Your task to perform on an android device: find snoozed emails in the gmail app Image 0: 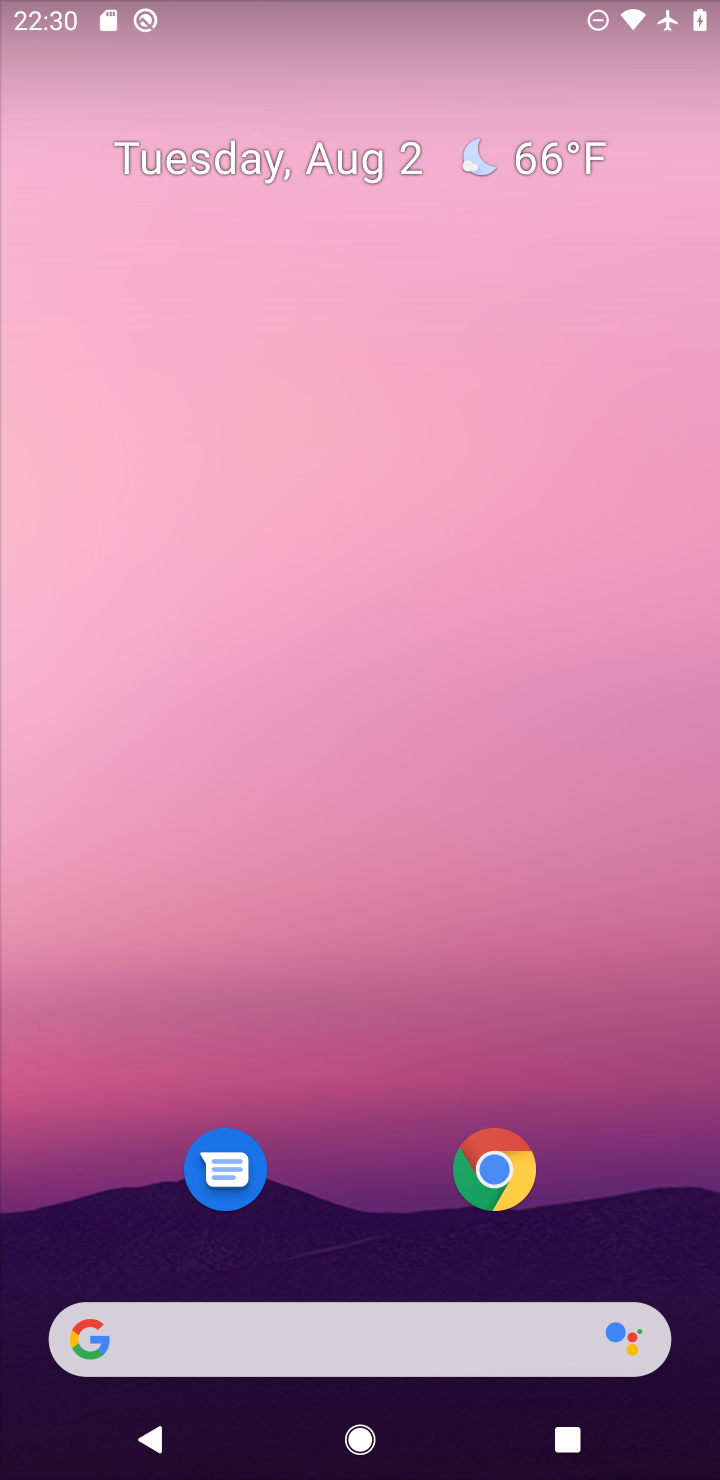
Step 0: drag from (372, 1232) to (390, 30)
Your task to perform on an android device: find snoozed emails in the gmail app Image 1: 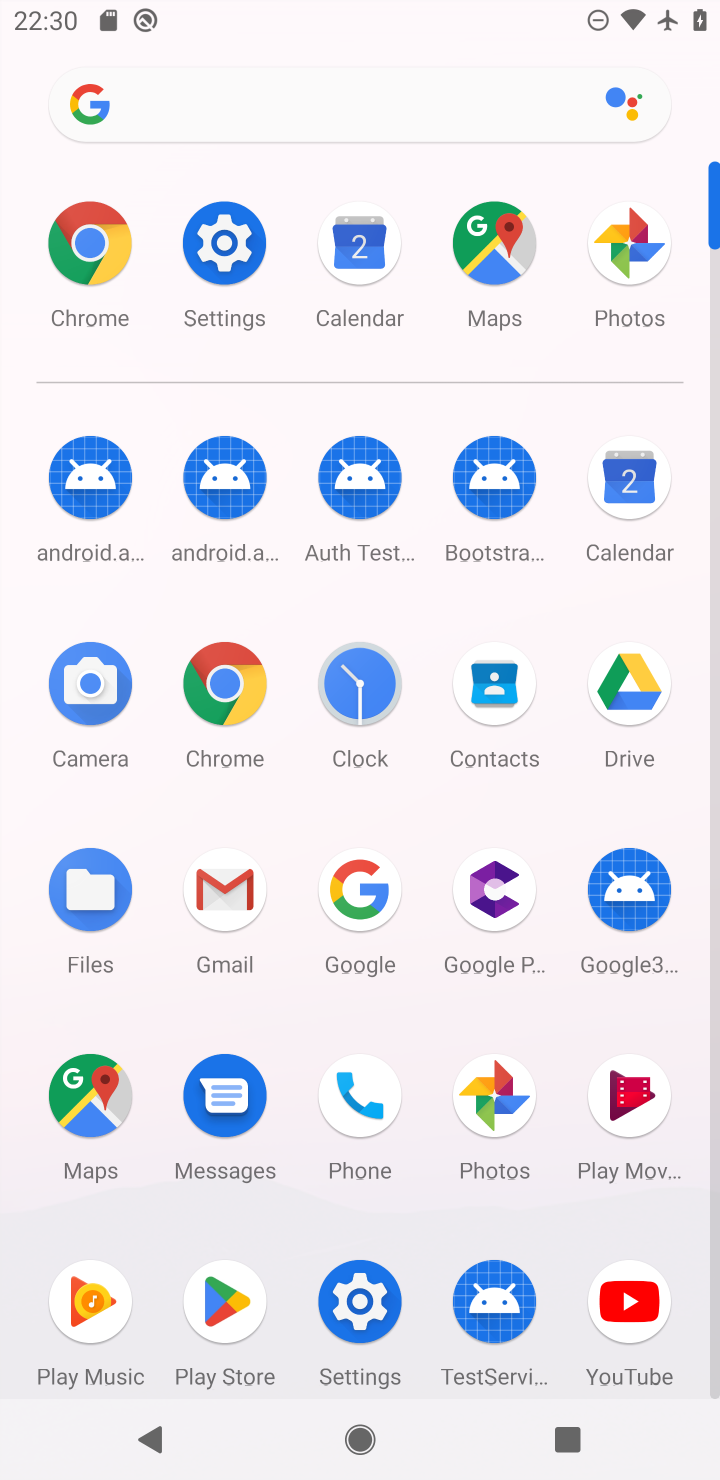
Step 1: click (224, 889)
Your task to perform on an android device: find snoozed emails in the gmail app Image 2: 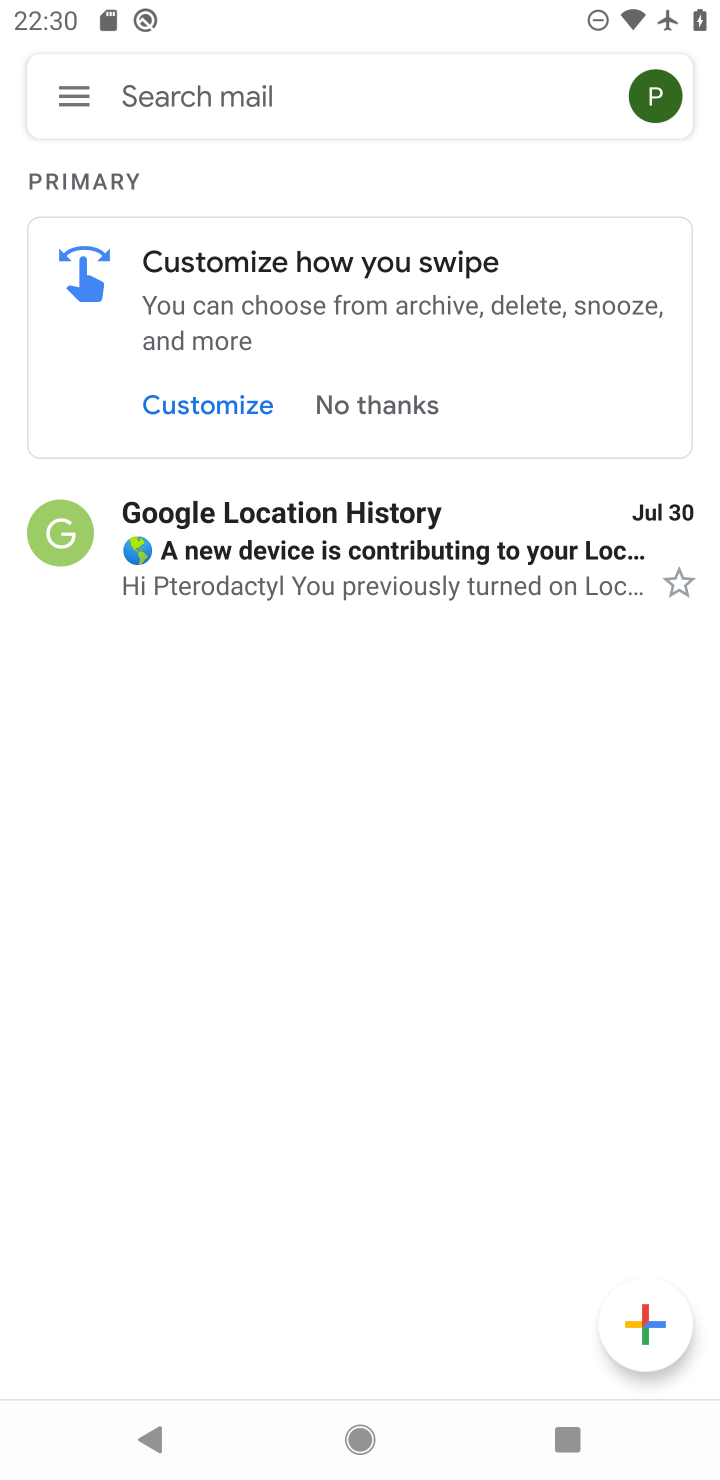
Step 2: click (60, 96)
Your task to perform on an android device: find snoozed emails in the gmail app Image 3: 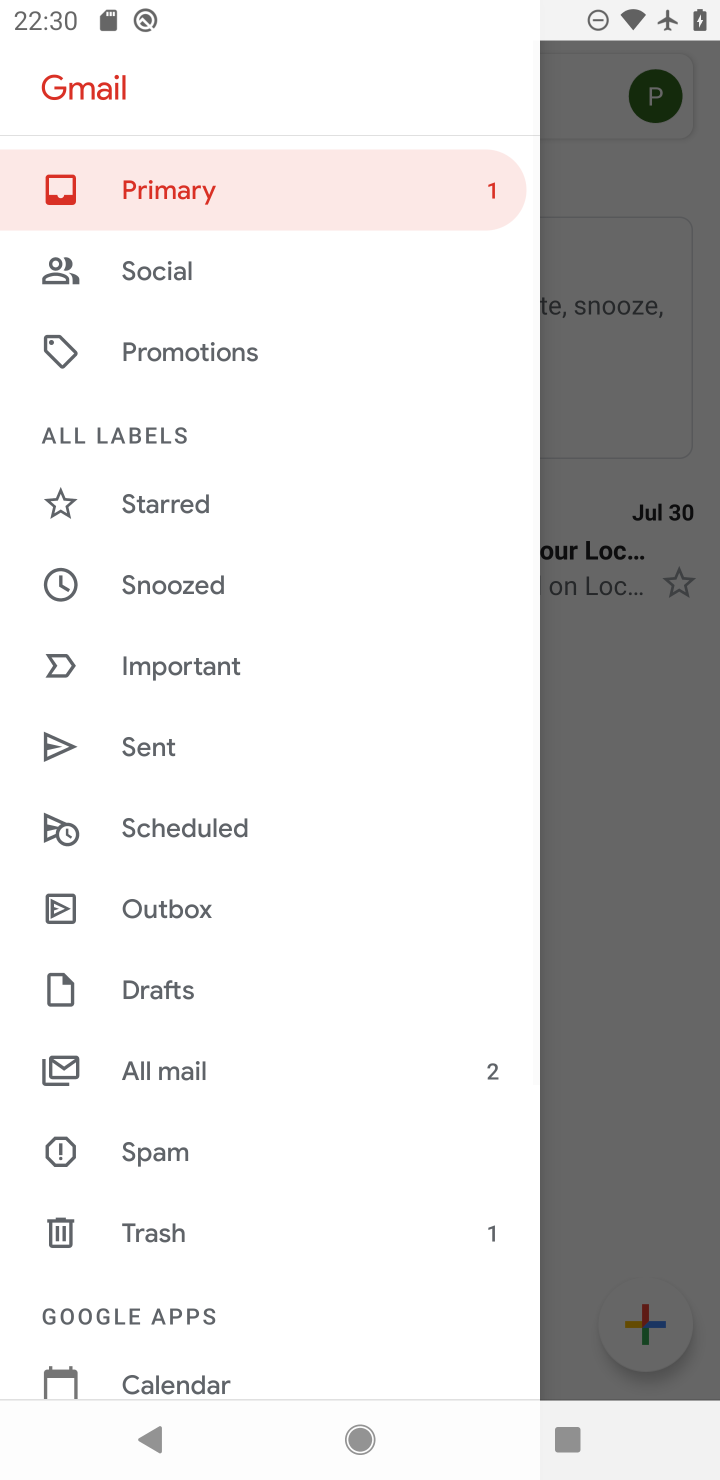
Step 3: click (191, 588)
Your task to perform on an android device: find snoozed emails in the gmail app Image 4: 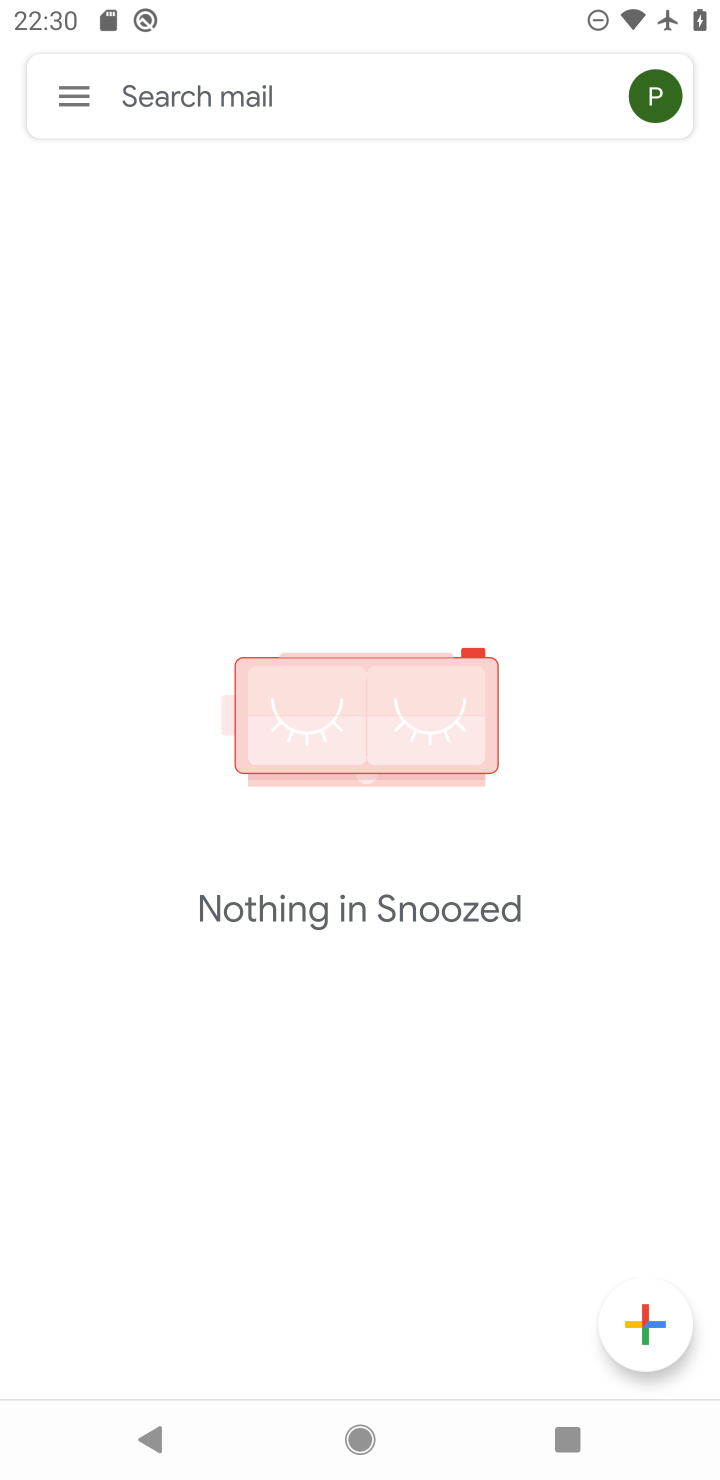
Step 4: task complete